Your task to perform on an android device: Go to Maps Image 0: 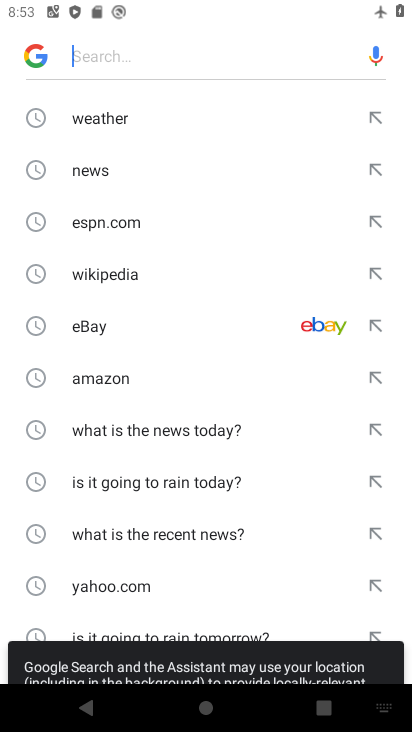
Step 0: press home button
Your task to perform on an android device: Go to Maps Image 1: 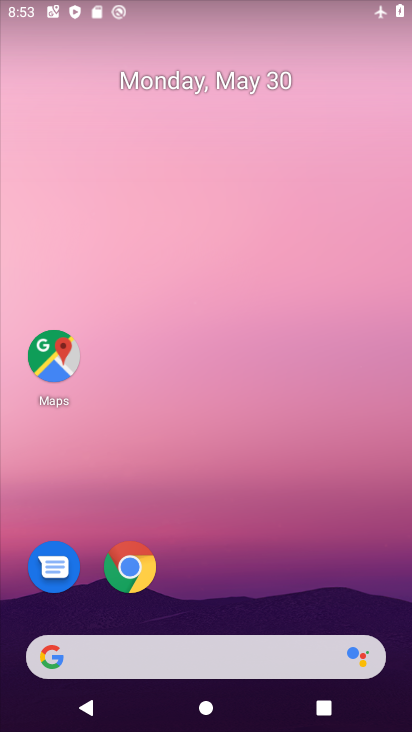
Step 1: click (40, 340)
Your task to perform on an android device: Go to Maps Image 2: 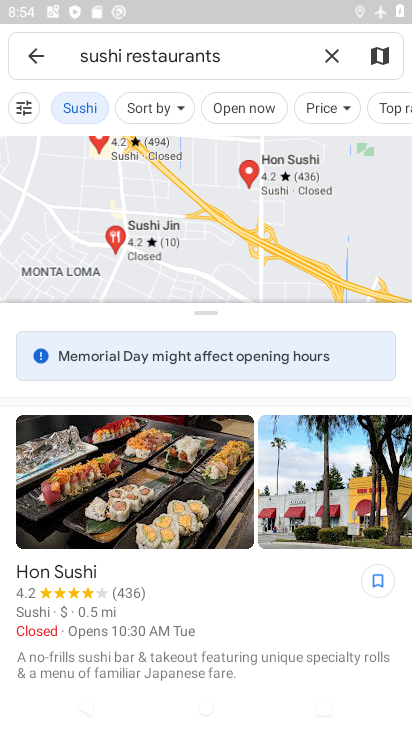
Step 2: task complete